Your task to perform on an android device: set the timer Image 0: 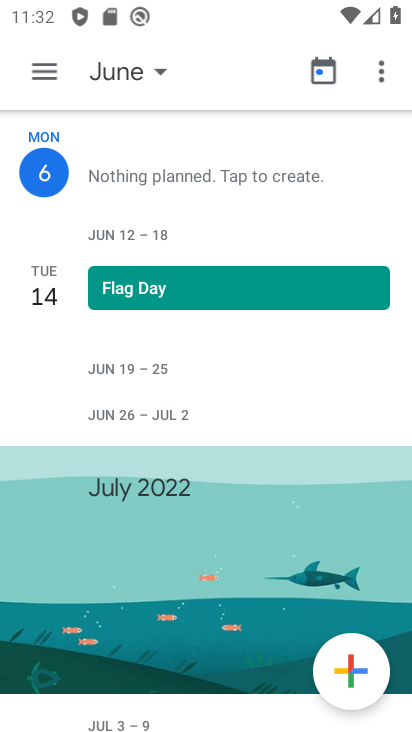
Step 0: press home button
Your task to perform on an android device: set the timer Image 1: 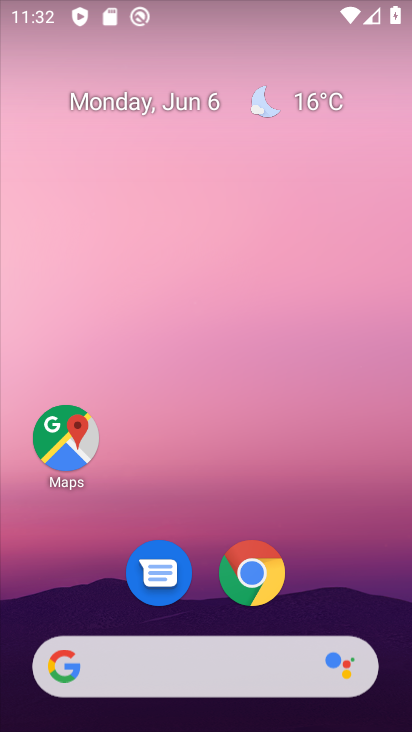
Step 1: drag from (185, 629) to (193, 233)
Your task to perform on an android device: set the timer Image 2: 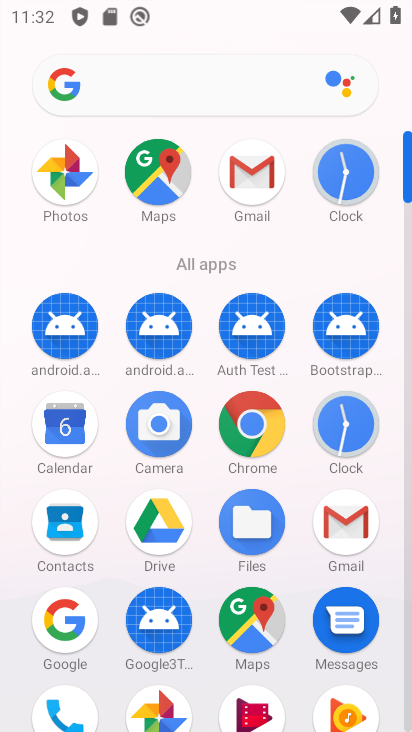
Step 2: click (337, 435)
Your task to perform on an android device: set the timer Image 3: 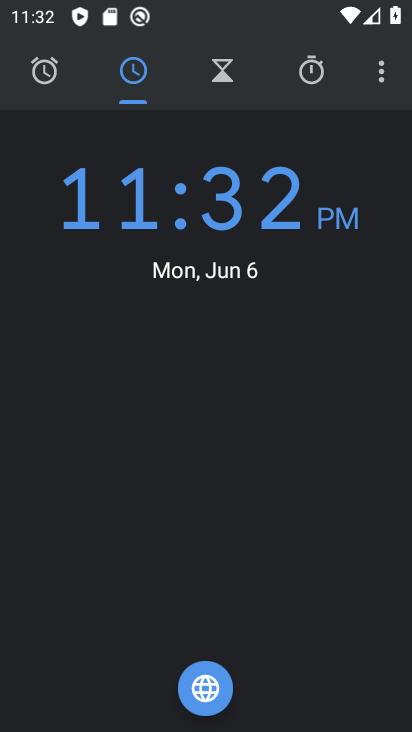
Step 3: click (319, 70)
Your task to perform on an android device: set the timer Image 4: 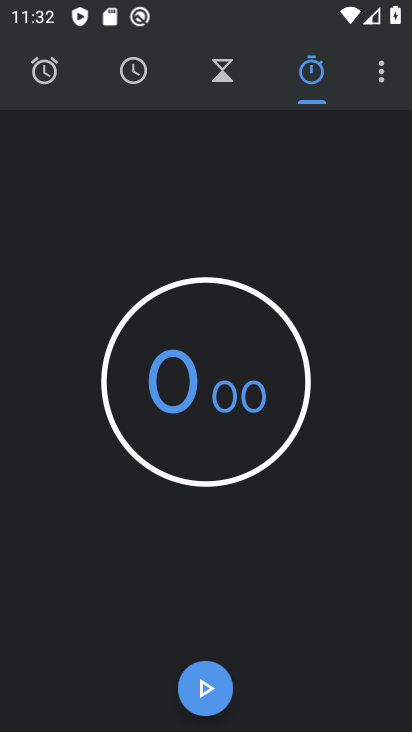
Step 4: click (185, 703)
Your task to perform on an android device: set the timer Image 5: 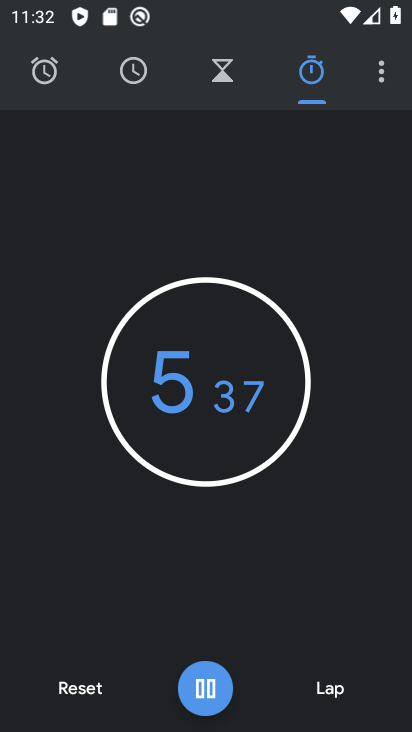
Step 5: click (201, 696)
Your task to perform on an android device: set the timer Image 6: 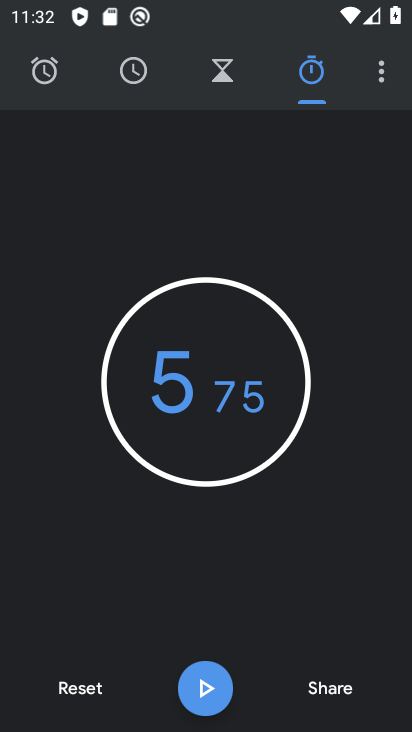
Step 6: task complete